Your task to perform on an android device: Empty the shopping cart on newegg.com. Search for razer blade on newegg.com, select the first entry, and add it to the cart. Image 0: 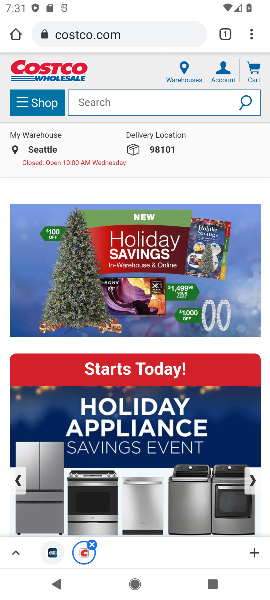
Step 0: press home button
Your task to perform on an android device: Empty the shopping cart on newegg.com. Search for razer blade on newegg.com, select the first entry, and add it to the cart. Image 1: 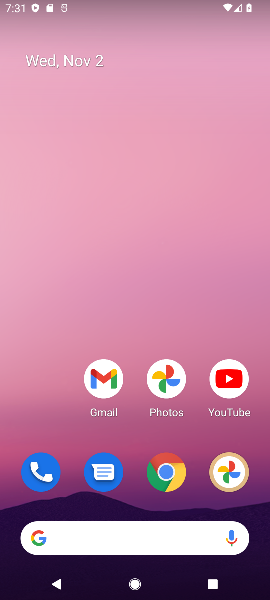
Step 1: click (42, 533)
Your task to perform on an android device: Empty the shopping cart on newegg.com. Search for razer blade on newegg.com, select the first entry, and add it to the cart. Image 2: 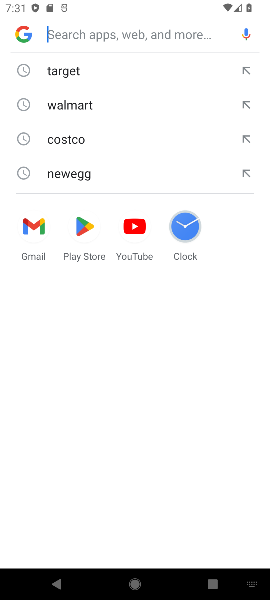
Step 2: type "newegg.com"
Your task to perform on an android device: Empty the shopping cart on newegg.com. Search for razer blade on newegg.com, select the first entry, and add it to the cart. Image 3: 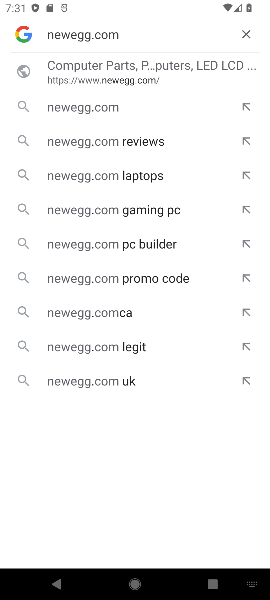
Step 3: click (117, 67)
Your task to perform on an android device: Empty the shopping cart on newegg.com. Search for razer blade on newegg.com, select the first entry, and add it to the cart. Image 4: 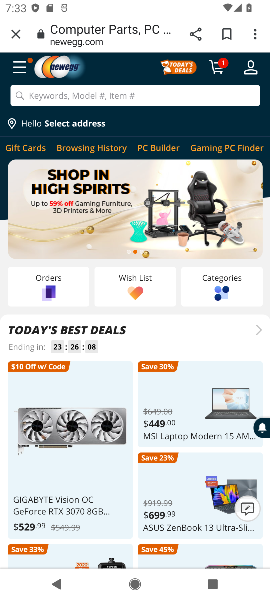
Step 4: click (219, 68)
Your task to perform on an android device: Empty the shopping cart on newegg.com. Search for razer blade on newegg.com, select the first entry, and add it to the cart. Image 5: 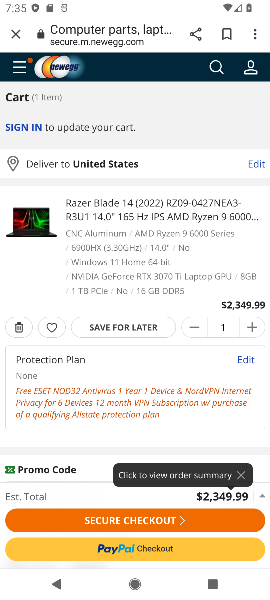
Step 5: click (241, 476)
Your task to perform on an android device: Empty the shopping cart on newegg.com. Search for razer blade on newegg.com, select the first entry, and add it to the cart. Image 6: 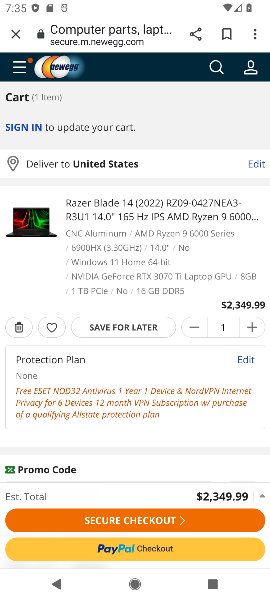
Step 6: click (17, 327)
Your task to perform on an android device: Empty the shopping cart on newegg.com. Search for razer blade on newegg.com, select the first entry, and add it to the cart. Image 7: 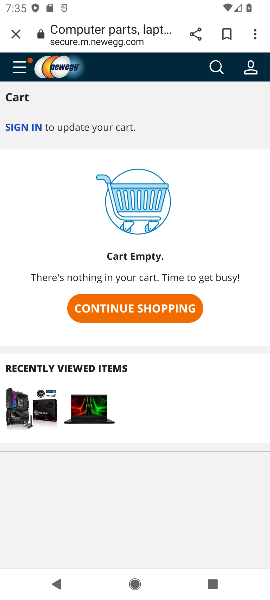
Step 7: click (217, 67)
Your task to perform on an android device: Empty the shopping cart on newegg.com. Search for razer blade on newegg.com, select the first entry, and add it to the cart. Image 8: 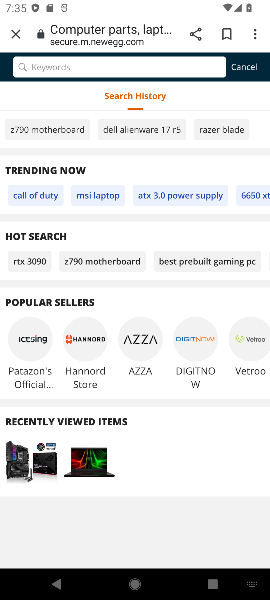
Step 8: type "razer blade"
Your task to perform on an android device: Empty the shopping cart on newegg.com. Search for razer blade on newegg.com, select the first entry, and add it to the cart. Image 9: 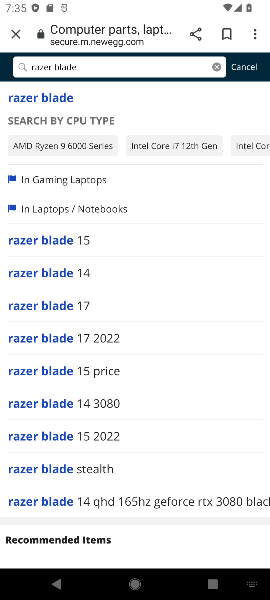
Step 9: click (43, 98)
Your task to perform on an android device: Empty the shopping cart on newegg.com. Search for razer blade on newegg.com, select the first entry, and add it to the cart. Image 10: 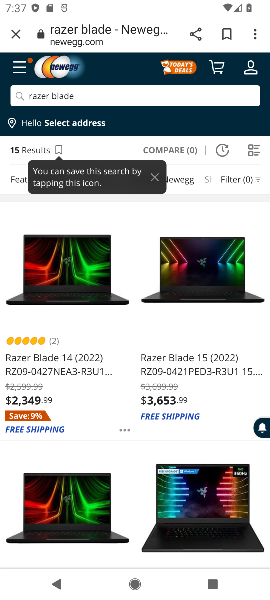
Step 10: click (42, 281)
Your task to perform on an android device: Empty the shopping cart on newegg.com. Search for razer blade on newegg.com, select the first entry, and add it to the cart. Image 11: 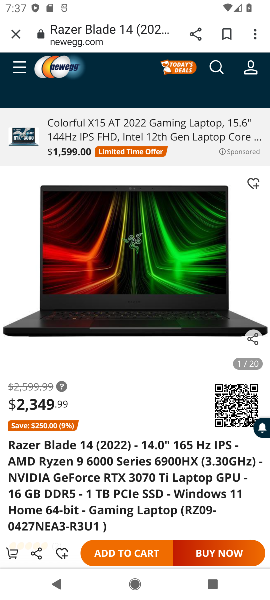
Step 11: task complete